Your task to perform on an android device: What's the weather? Image 0: 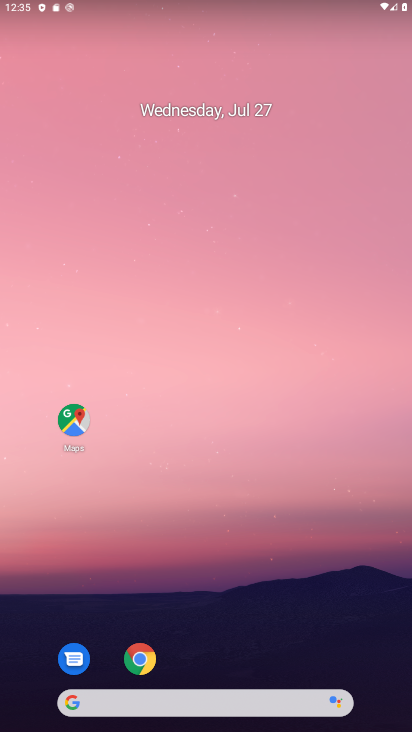
Step 0: drag from (323, 640) to (325, 79)
Your task to perform on an android device: What's the weather? Image 1: 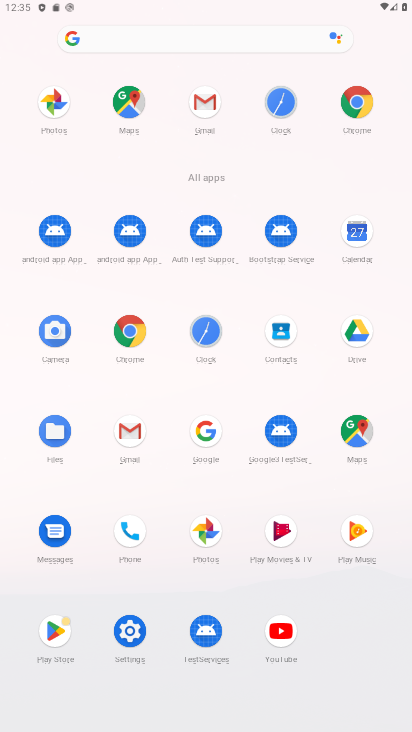
Step 1: click (364, 103)
Your task to perform on an android device: What's the weather? Image 2: 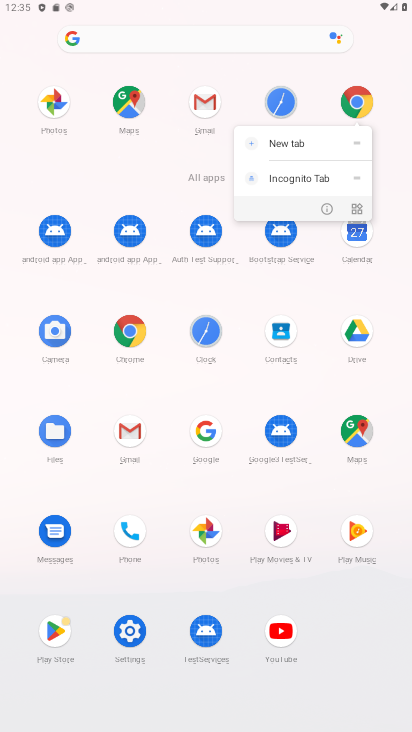
Step 2: click (358, 106)
Your task to perform on an android device: What's the weather? Image 3: 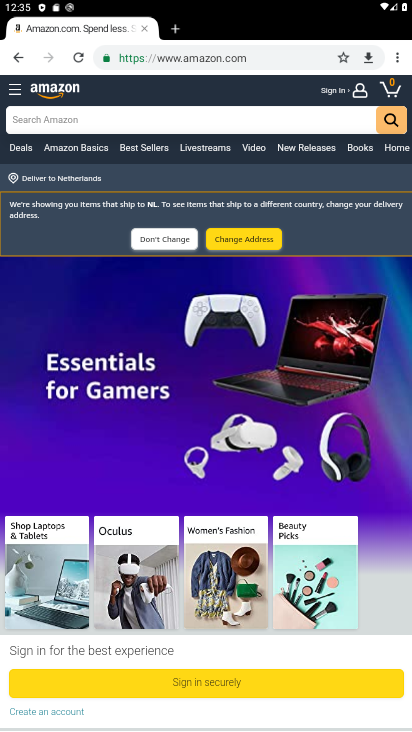
Step 3: click (228, 57)
Your task to perform on an android device: What's the weather? Image 4: 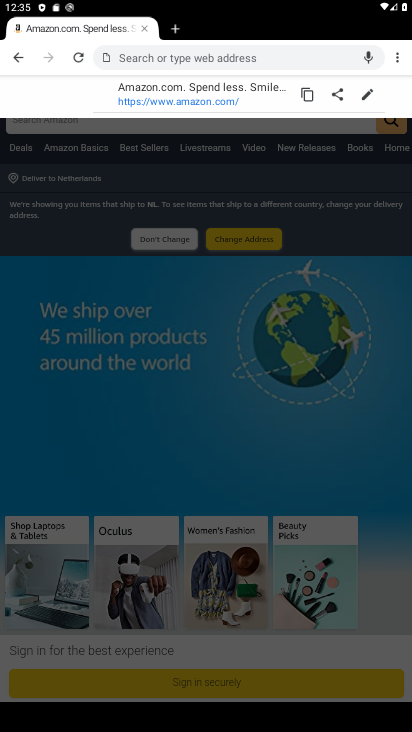
Step 4: type "weather"
Your task to perform on an android device: What's the weather? Image 5: 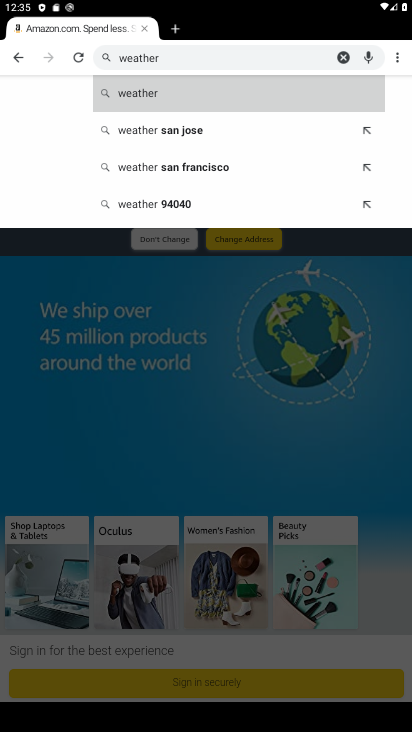
Step 5: click (142, 90)
Your task to perform on an android device: What's the weather? Image 6: 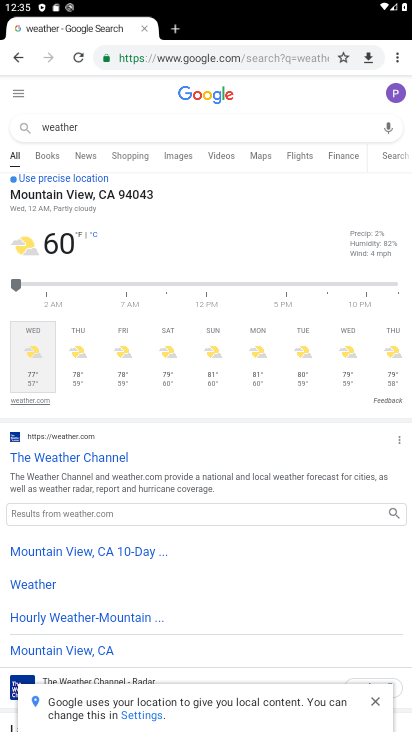
Step 6: task complete